Your task to perform on an android device: set an alarm Image 0: 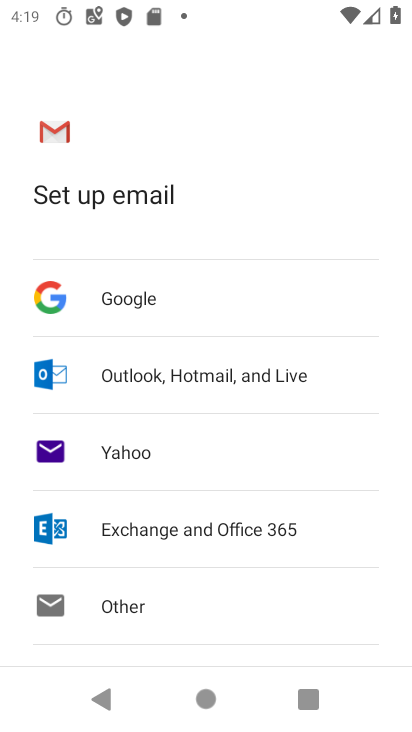
Step 0: press home button
Your task to perform on an android device: set an alarm Image 1: 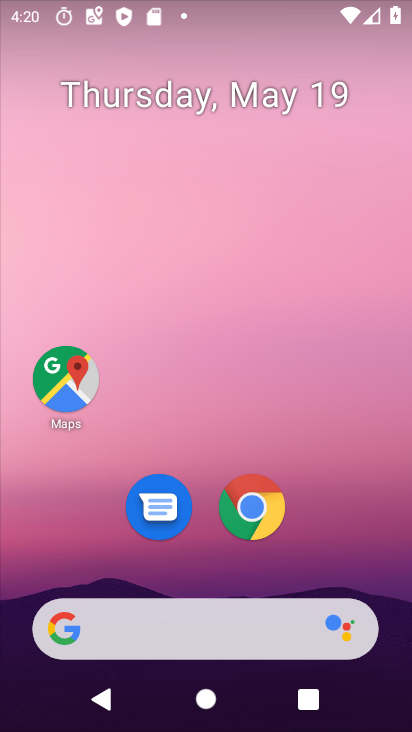
Step 1: drag from (401, 544) to (382, 304)
Your task to perform on an android device: set an alarm Image 2: 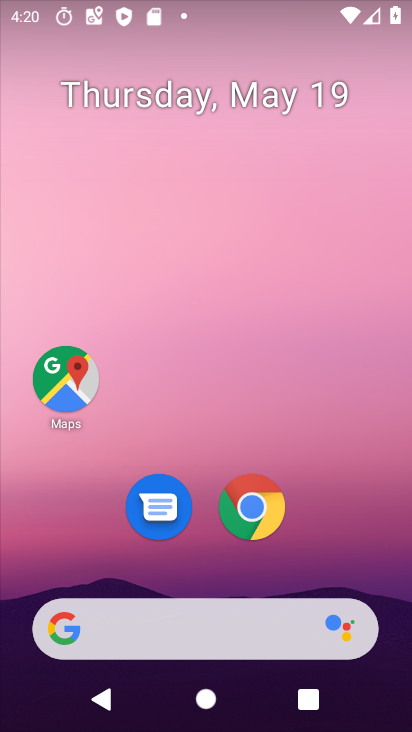
Step 2: drag from (396, 653) to (388, 230)
Your task to perform on an android device: set an alarm Image 3: 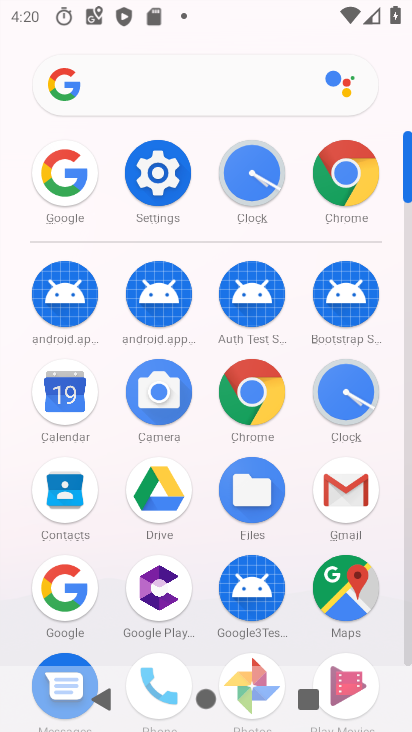
Step 3: click (349, 383)
Your task to perform on an android device: set an alarm Image 4: 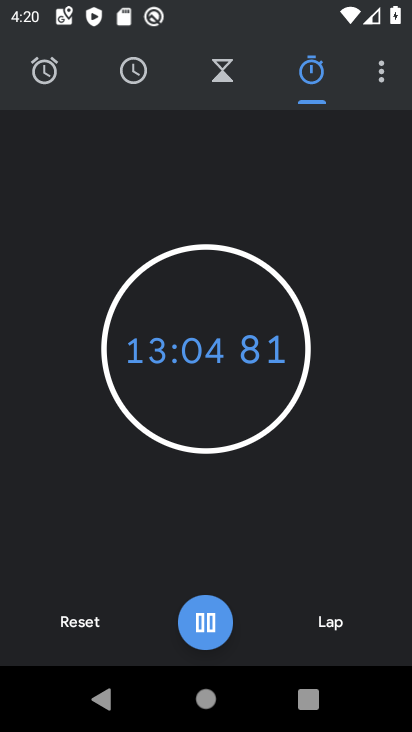
Step 4: click (40, 66)
Your task to perform on an android device: set an alarm Image 5: 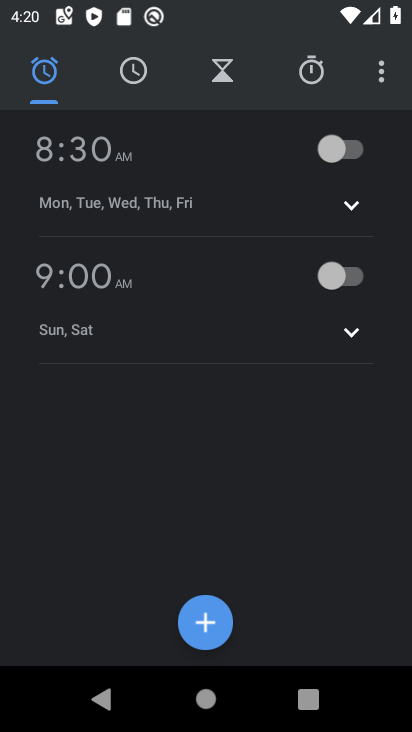
Step 5: click (353, 142)
Your task to perform on an android device: set an alarm Image 6: 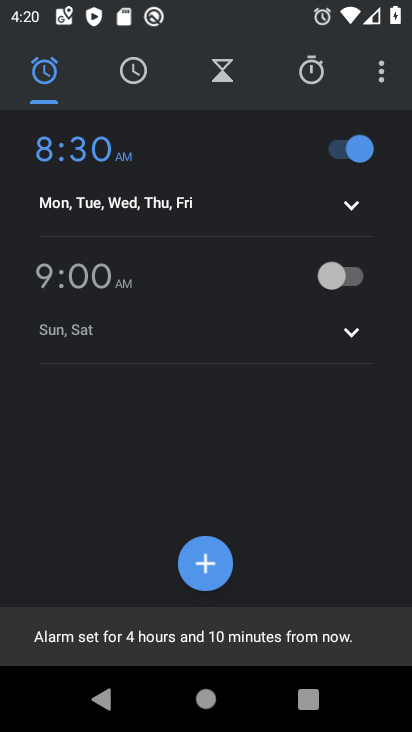
Step 6: task complete